Your task to perform on an android device: Go to wifi settings Image 0: 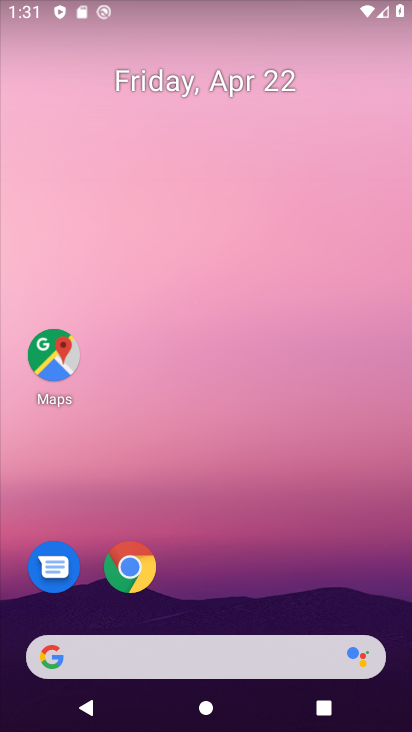
Step 0: drag from (233, 610) to (322, 64)
Your task to perform on an android device: Go to wifi settings Image 1: 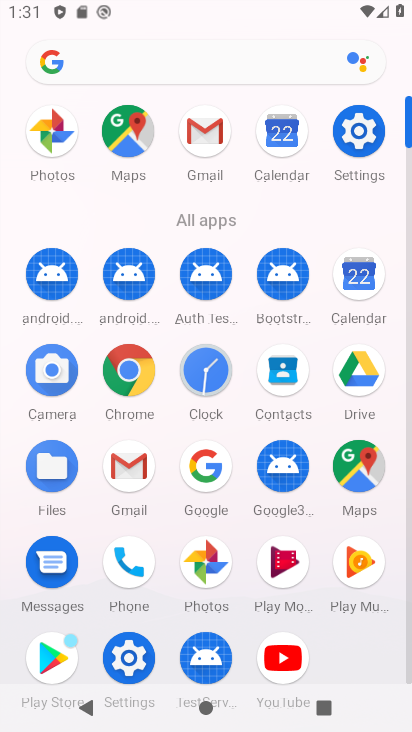
Step 1: click (351, 130)
Your task to perform on an android device: Go to wifi settings Image 2: 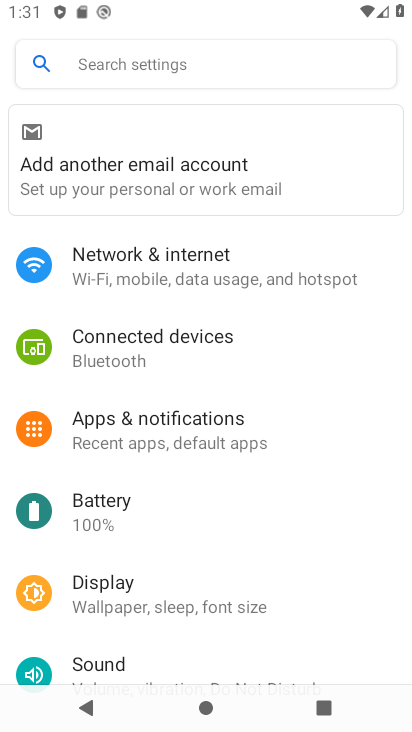
Step 2: click (216, 282)
Your task to perform on an android device: Go to wifi settings Image 3: 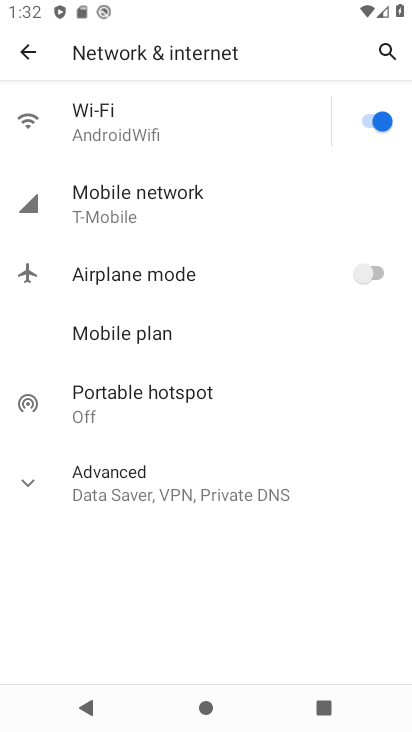
Step 3: click (171, 135)
Your task to perform on an android device: Go to wifi settings Image 4: 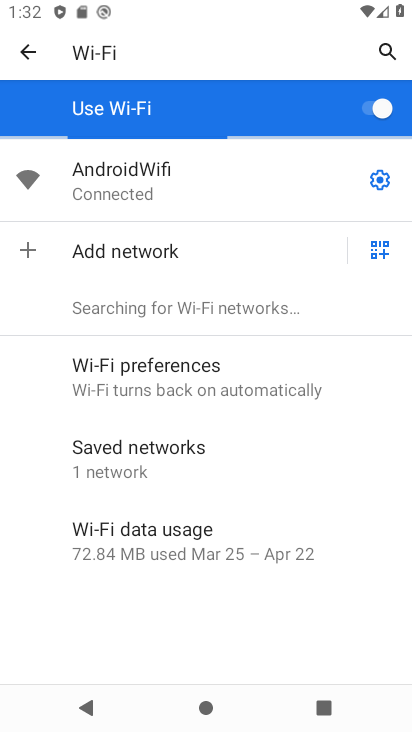
Step 4: click (371, 178)
Your task to perform on an android device: Go to wifi settings Image 5: 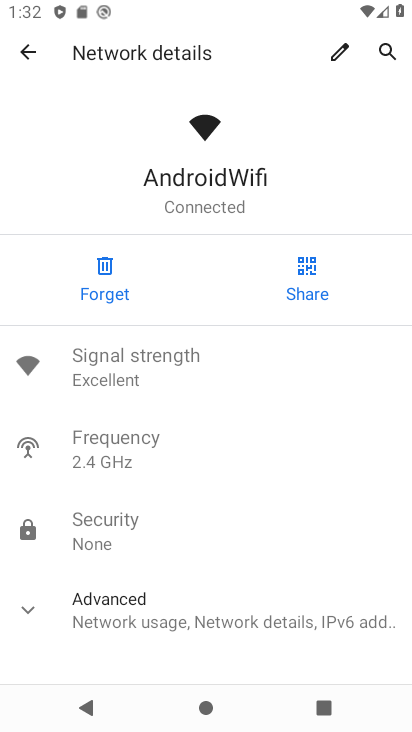
Step 5: task complete